Your task to perform on an android device: check android version Image 0: 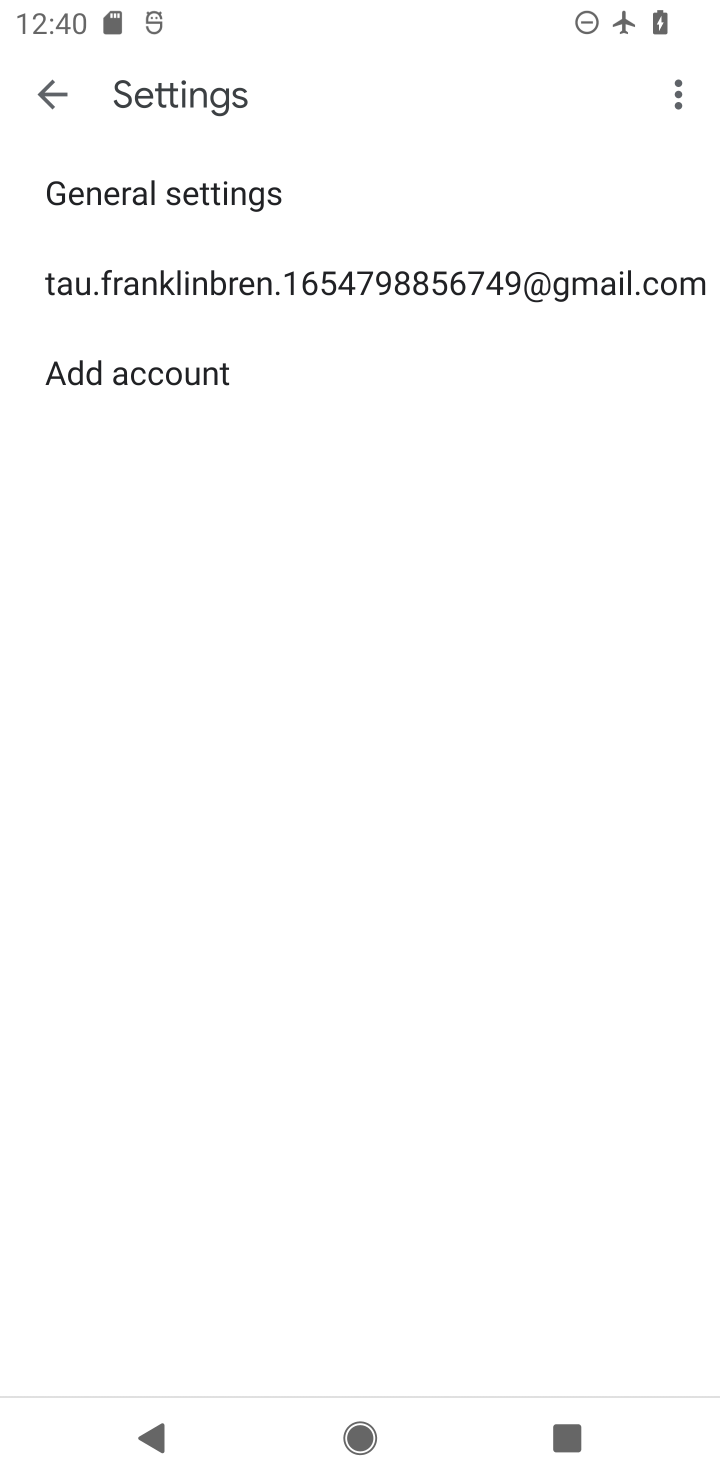
Step 0: press home button
Your task to perform on an android device: check android version Image 1: 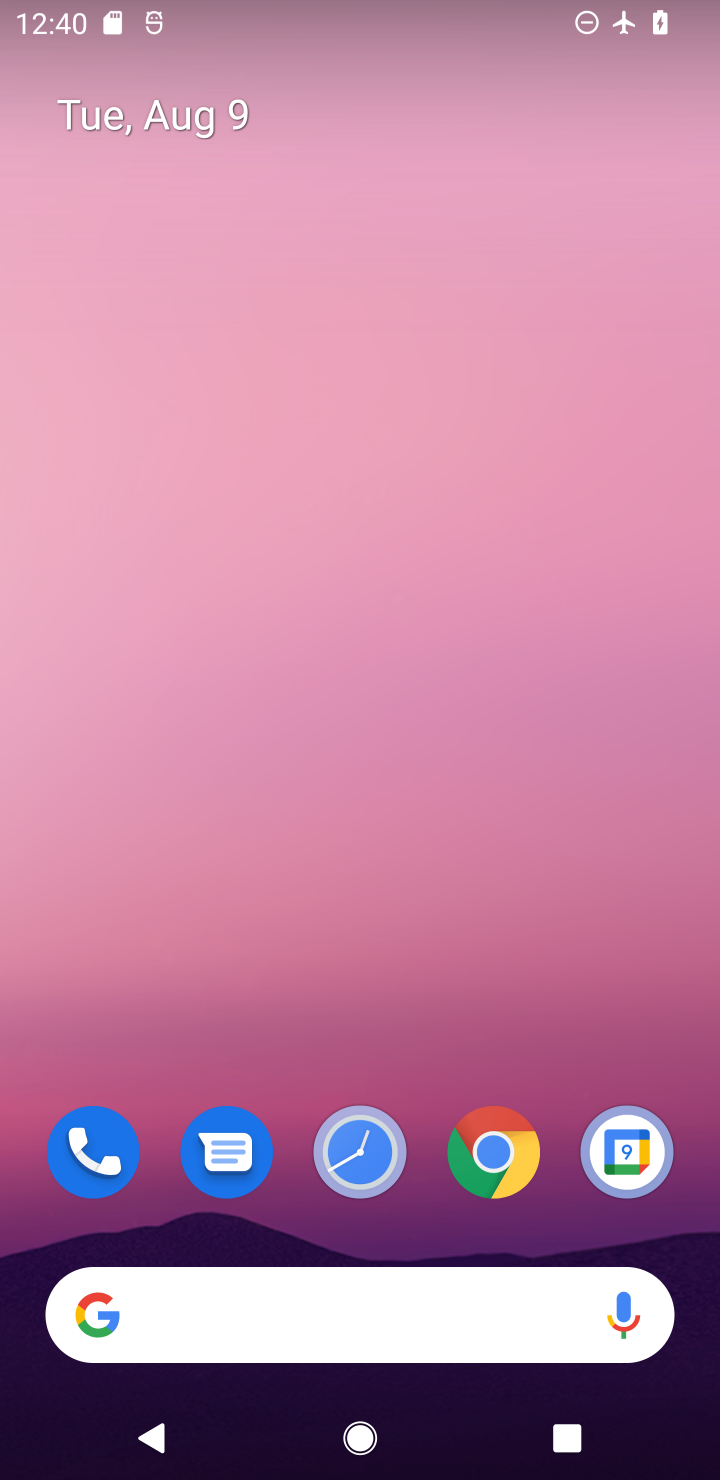
Step 1: drag from (540, 1057) to (526, 205)
Your task to perform on an android device: check android version Image 2: 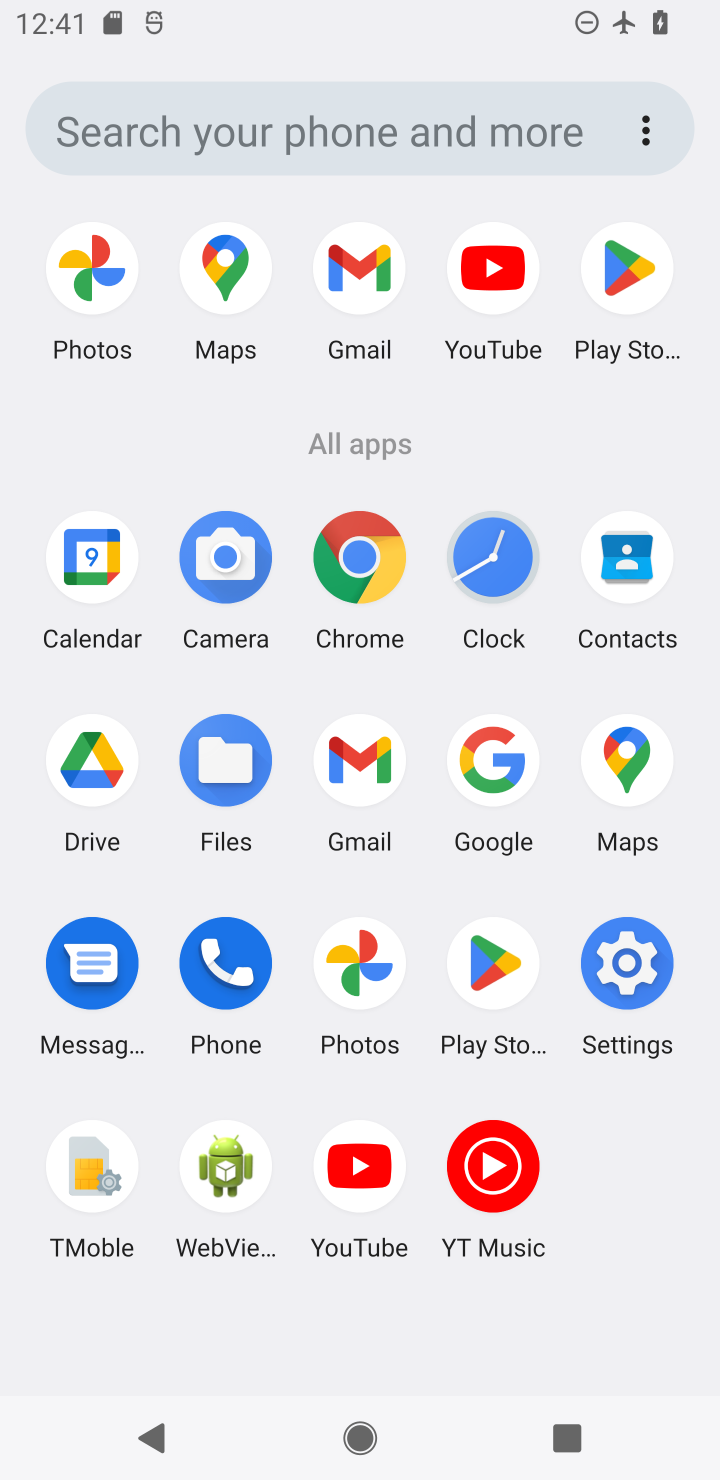
Step 2: click (646, 977)
Your task to perform on an android device: check android version Image 3: 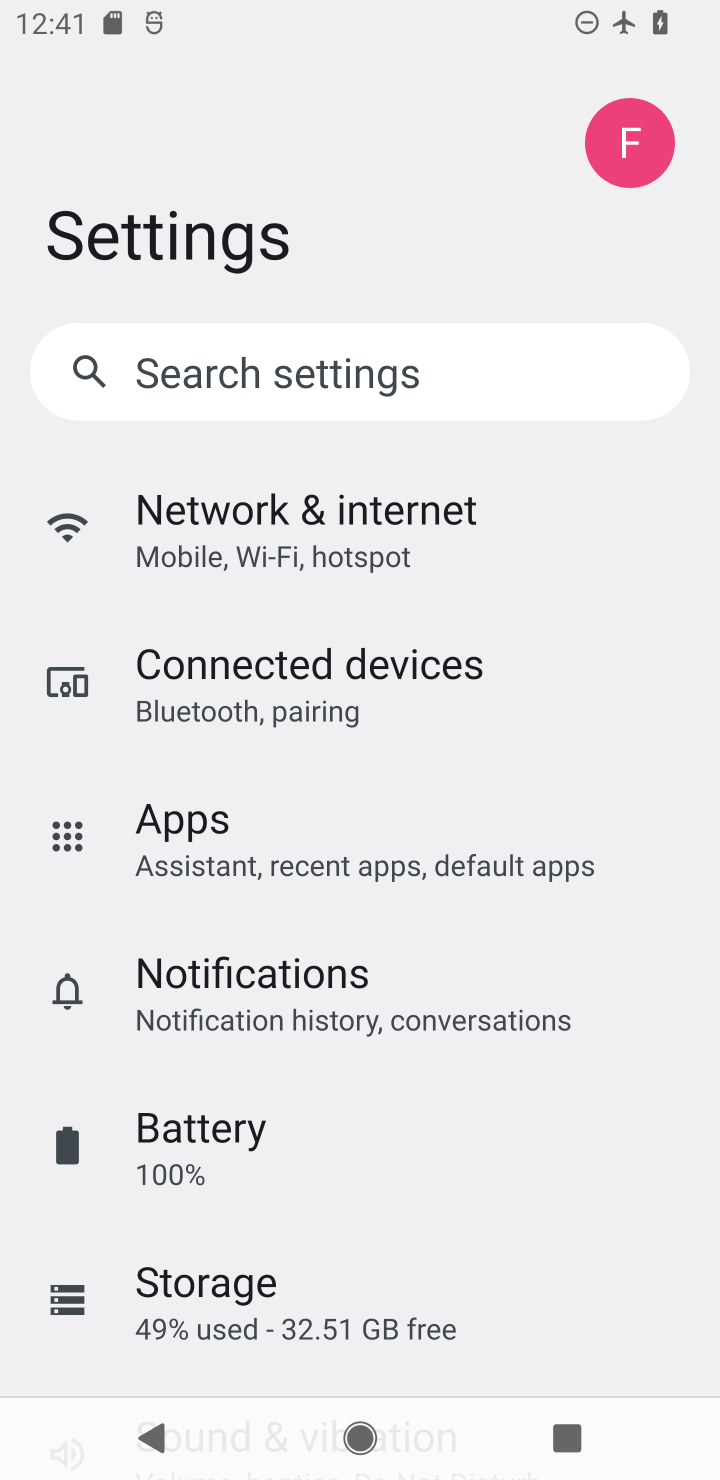
Step 3: drag from (542, 1266) to (422, 375)
Your task to perform on an android device: check android version Image 4: 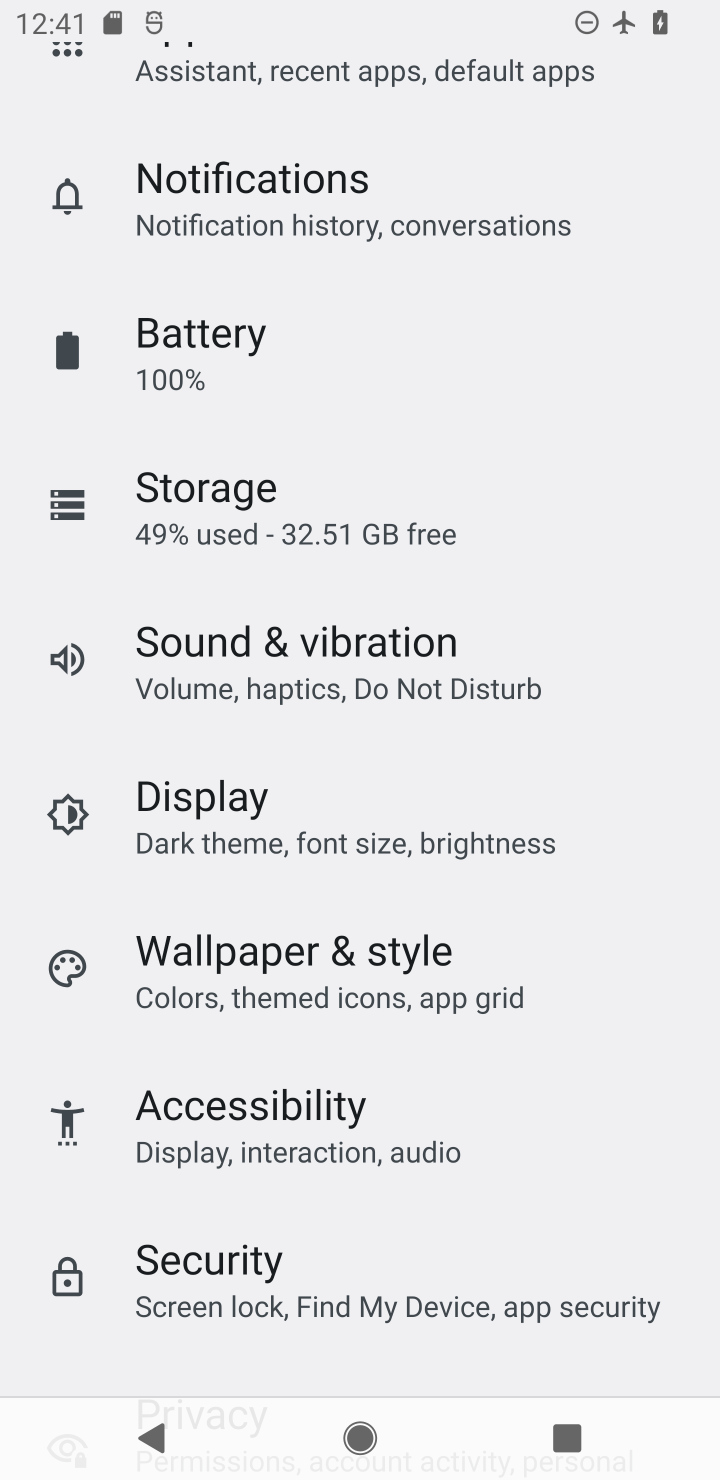
Step 4: drag from (534, 1078) to (355, 0)
Your task to perform on an android device: check android version Image 5: 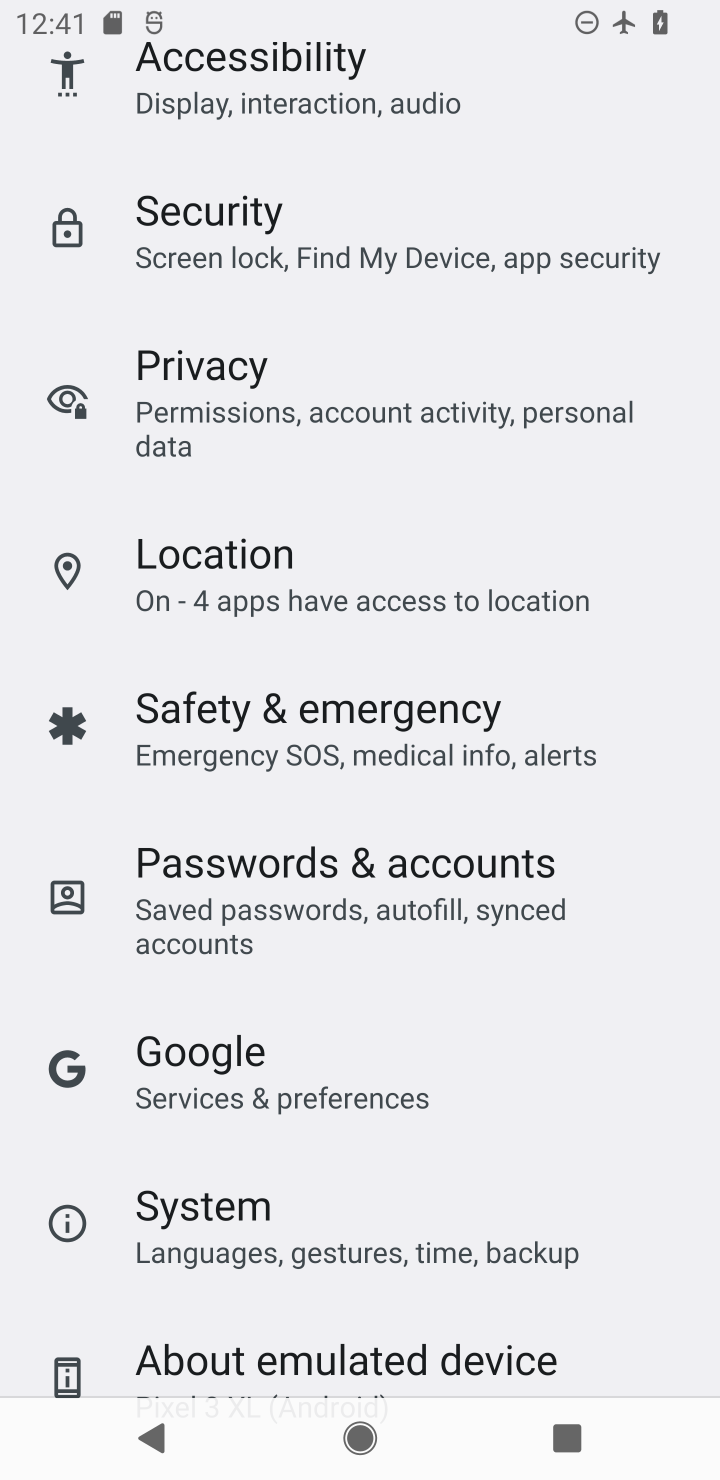
Step 5: drag from (450, 1185) to (209, 182)
Your task to perform on an android device: check android version Image 6: 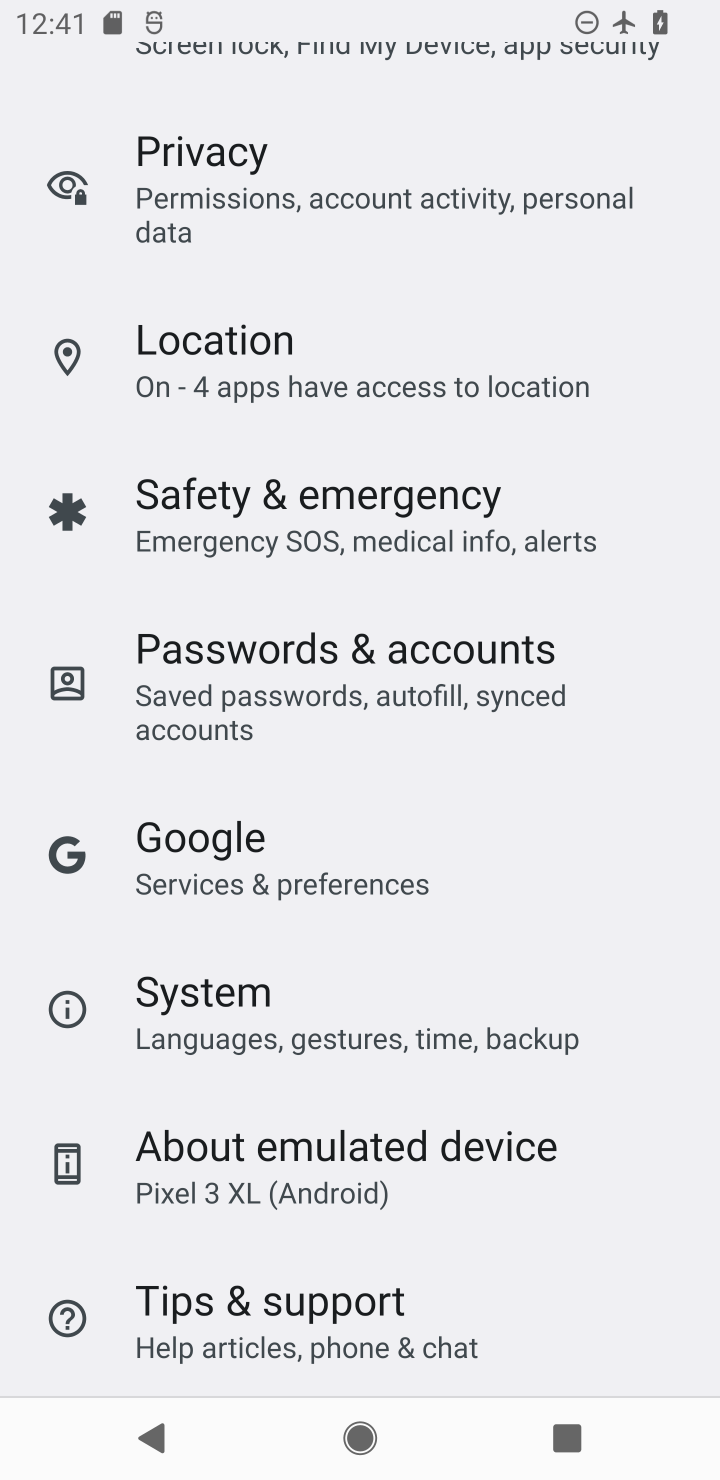
Step 6: drag from (536, 1251) to (306, 429)
Your task to perform on an android device: check android version Image 7: 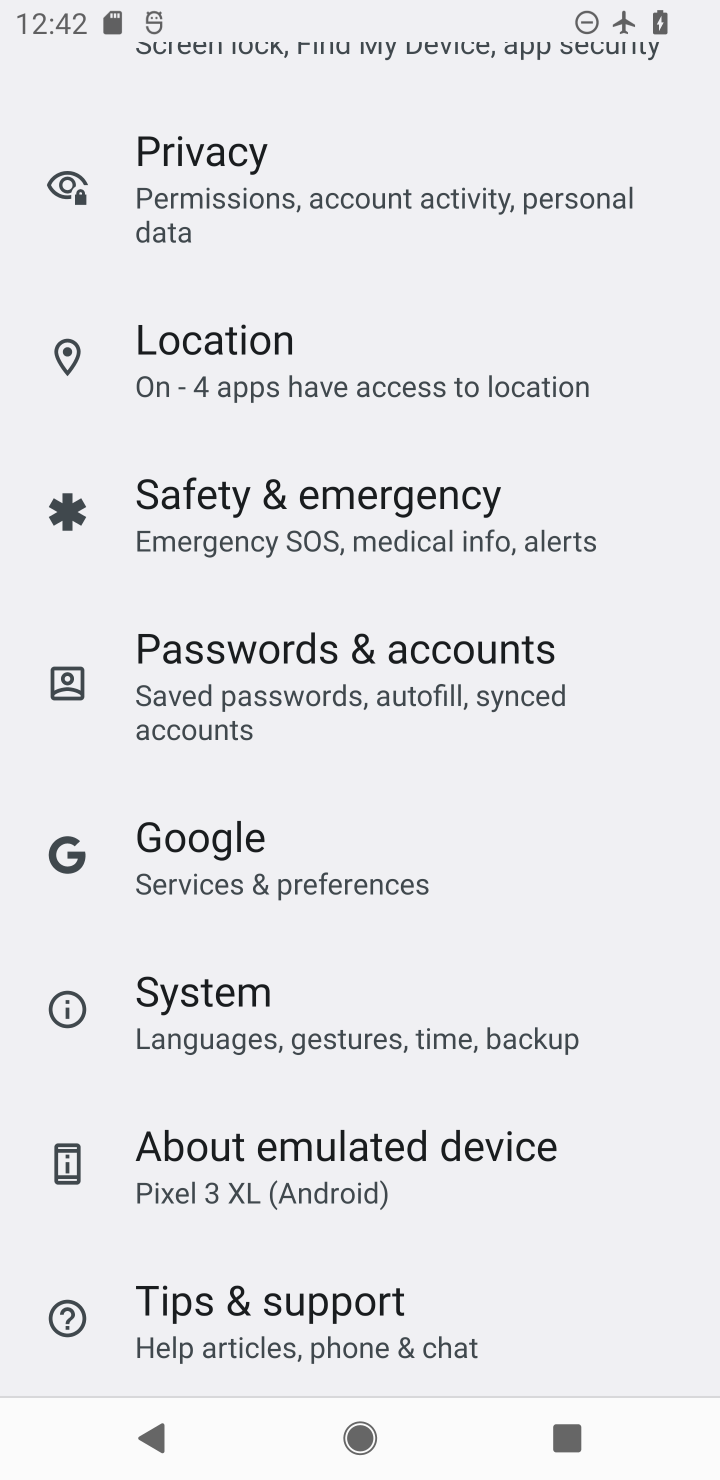
Step 7: click (363, 1177)
Your task to perform on an android device: check android version Image 8: 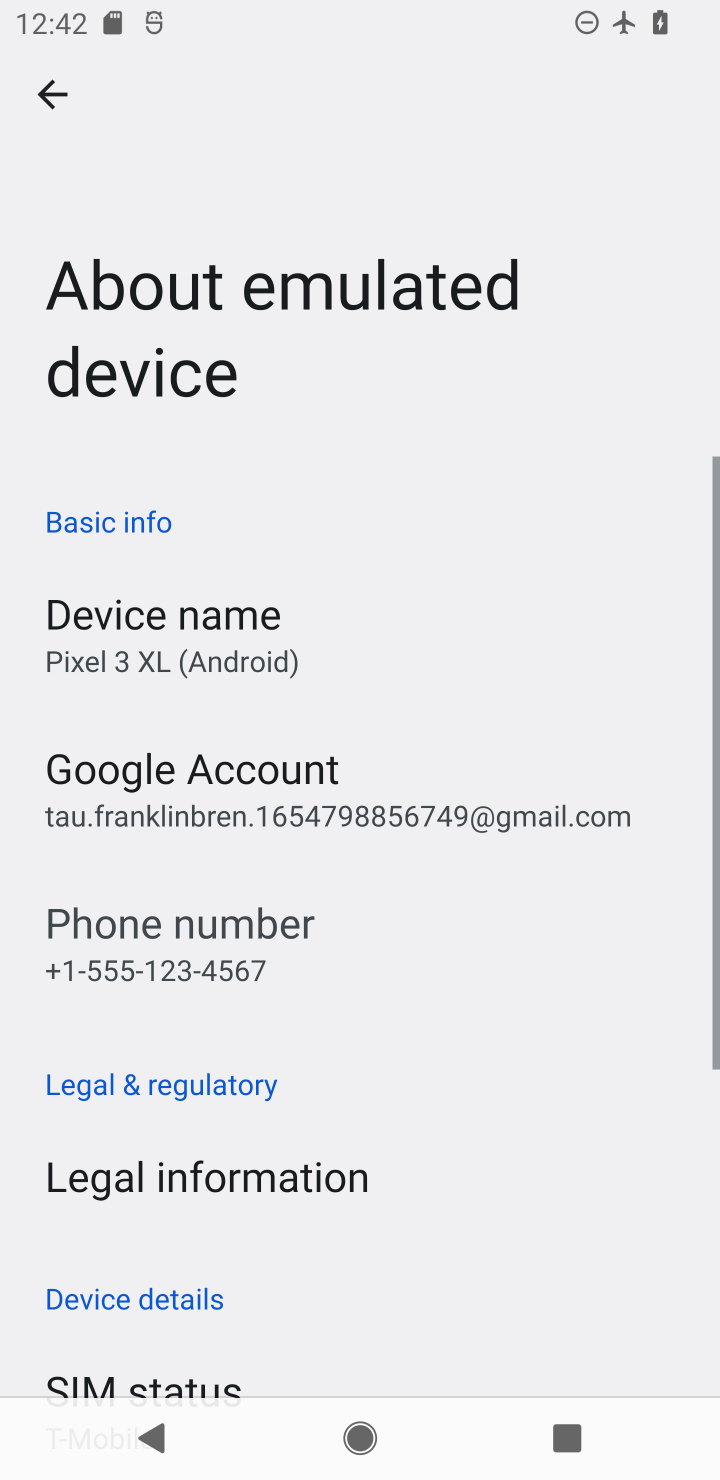
Step 8: drag from (542, 1262) to (373, 457)
Your task to perform on an android device: check android version Image 9: 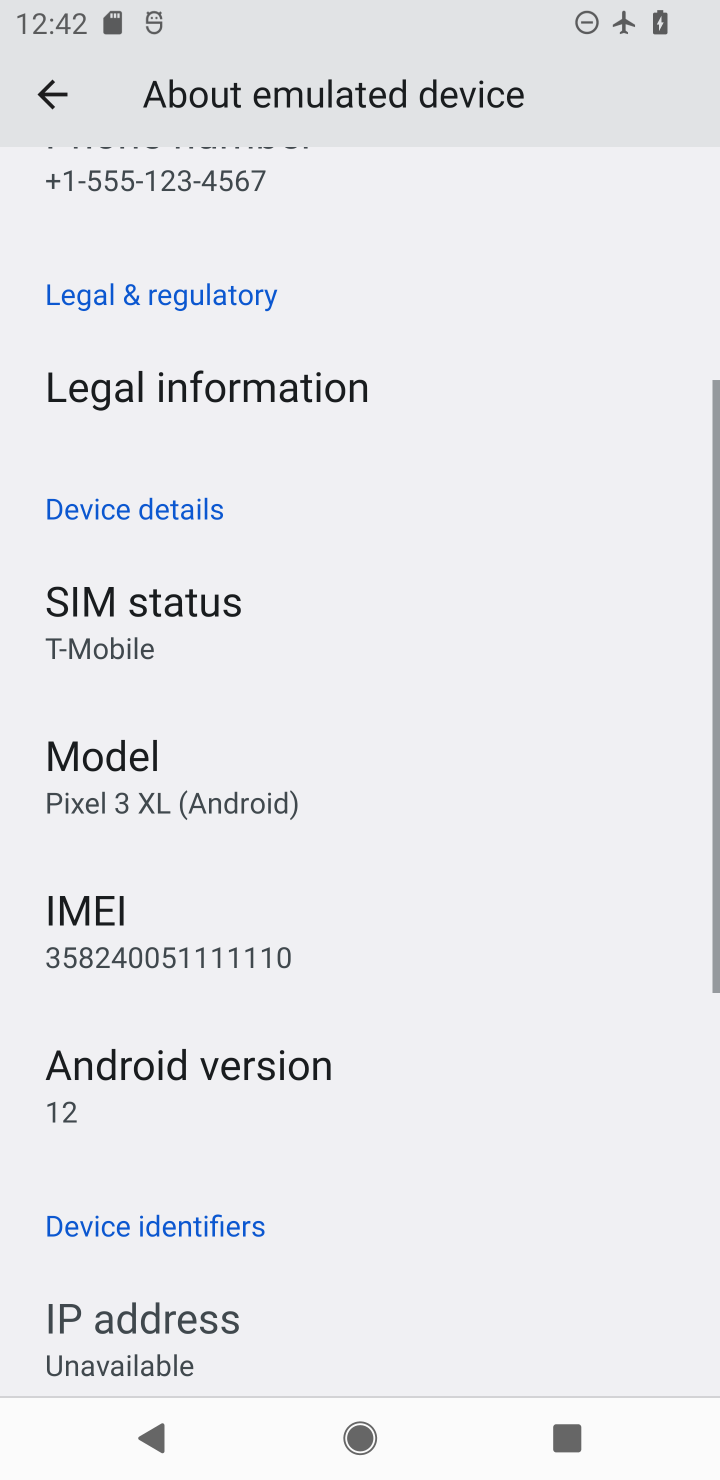
Step 9: click (241, 1080)
Your task to perform on an android device: check android version Image 10: 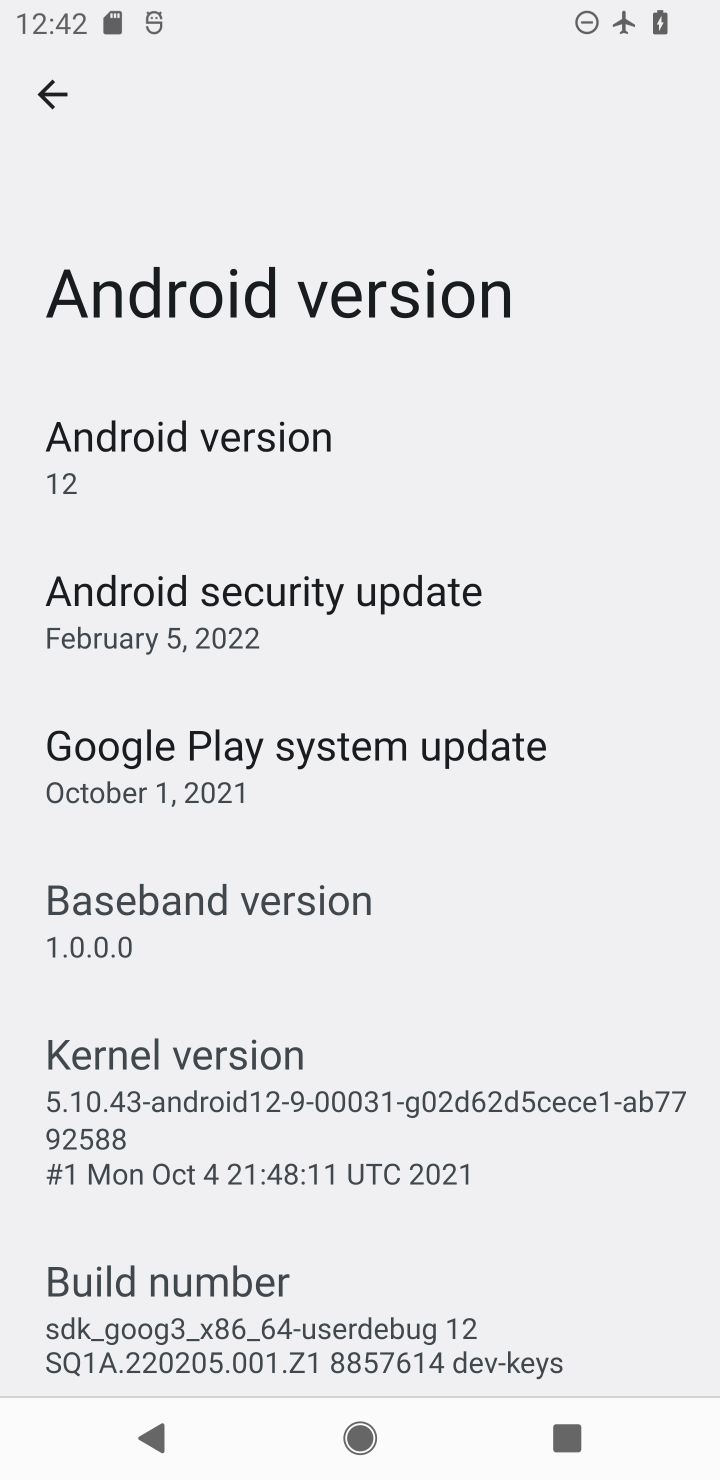
Step 10: task complete